Your task to perform on an android device: remove spam from my inbox in the gmail app Image 0: 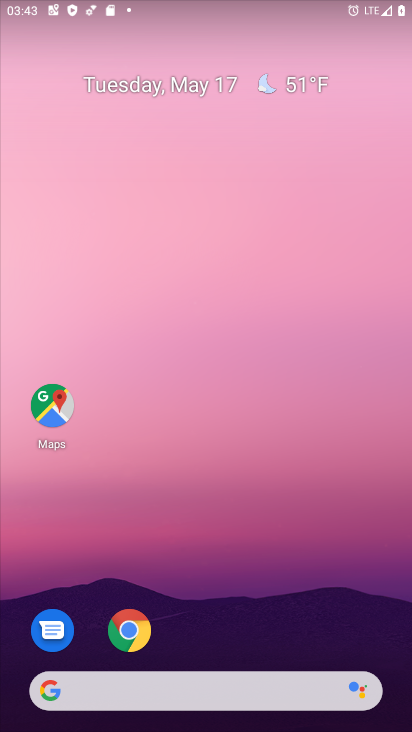
Step 0: drag from (260, 561) to (315, 84)
Your task to perform on an android device: remove spam from my inbox in the gmail app Image 1: 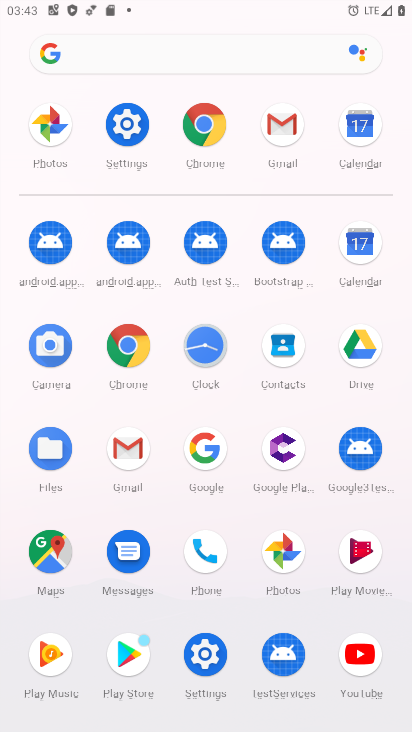
Step 1: click (279, 121)
Your task to perform on an android device: remove spam from my inbox in the gmail app Image 2: 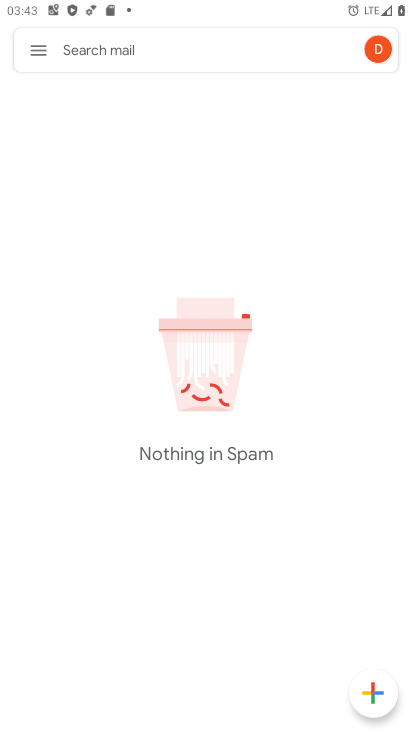
Step 2: click (27, 44)
Your task to perform on an android device: remove spam from my inbox in the gmail app Image 3: 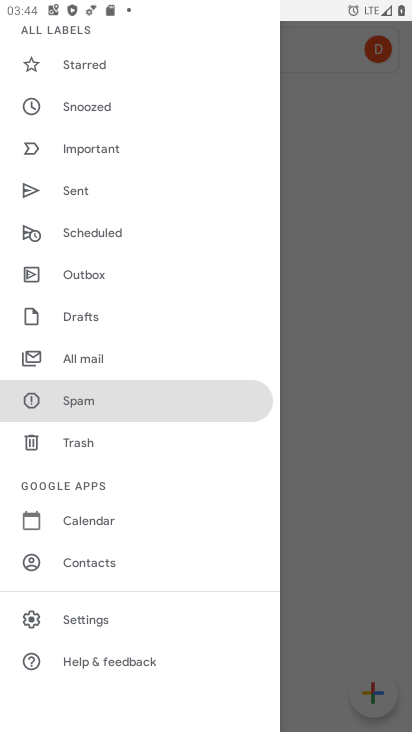
Step 3: click (107, 401)
Your task to perform on an android device: remove spam from my inbox in the gmail app Image 4: 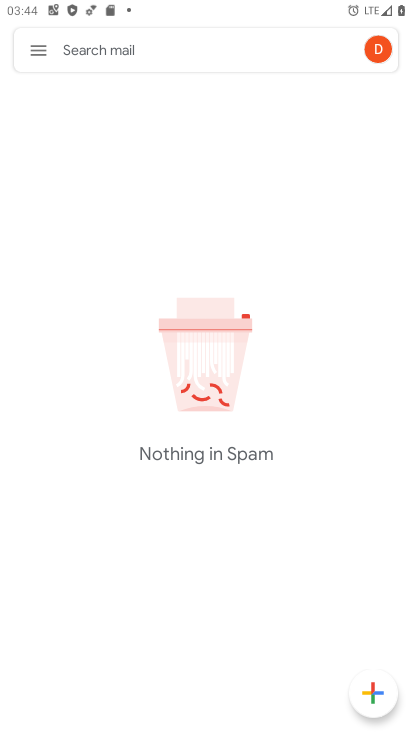
Step 4: task complete